Your task to perform on an android device: What's the weather? Image 0: 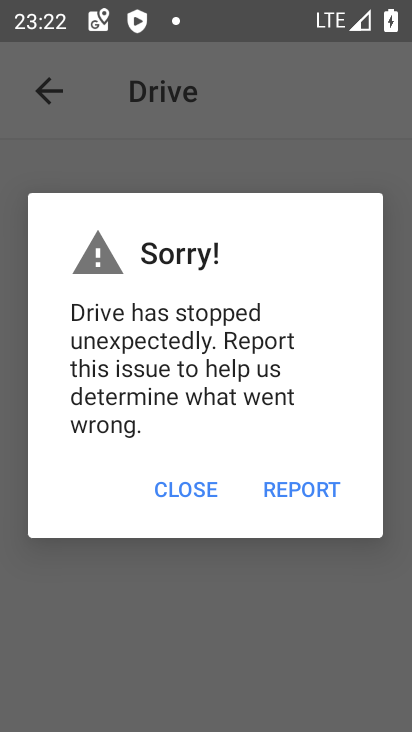
Step 0: press home button
Your task to perform on an android device: What's the weather? Image 1: 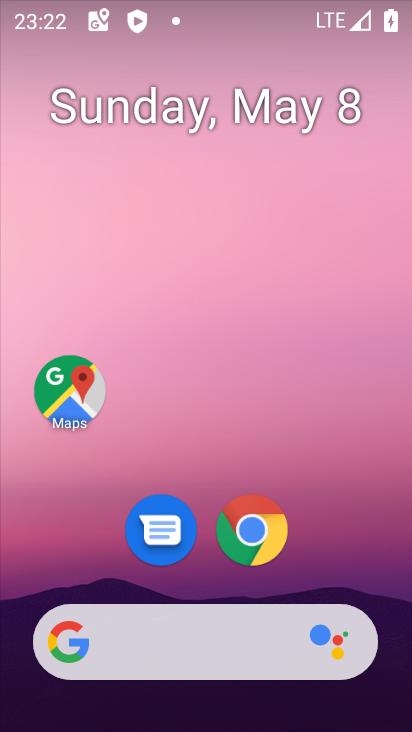
Step 1: drag from (336, 543) to (336, 22)
Your task to perform on an android device: What's the weather? Image 2: 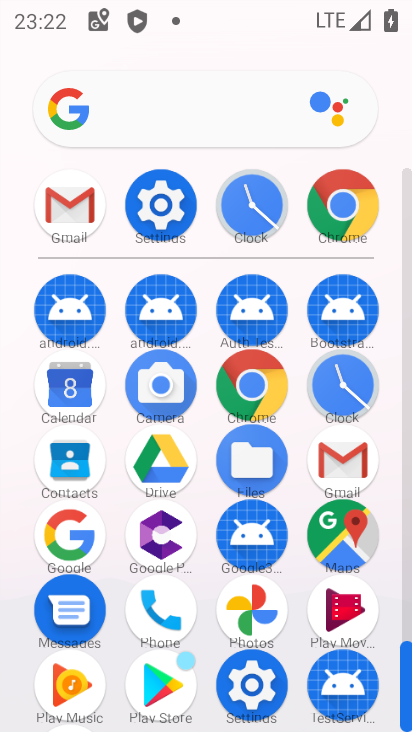
Step 2: click (354, 201)
Your task to perform on an android device: What's the weather? Image 3: 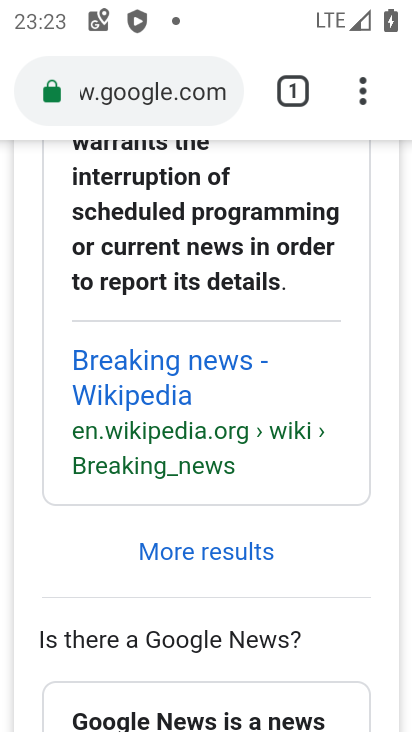
Step 3: drag from (333, 600) to (346, 305)
Your task to perform on an android device: What's the weather? Image 4: 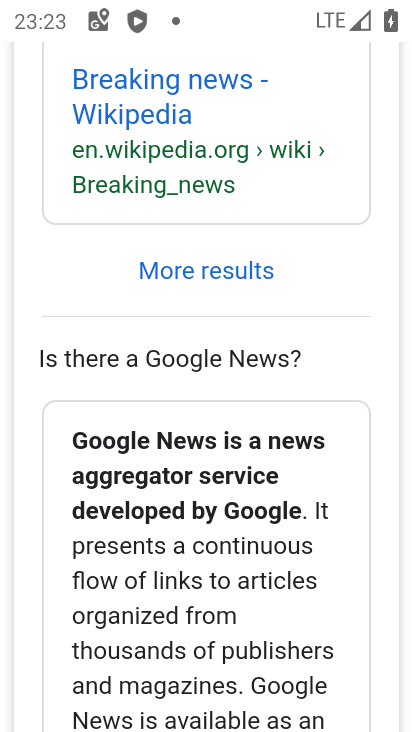
Step 4: drag from (253, 101) to (274, 521)
Your task to perform on an android device: What's the weather? Image 5: 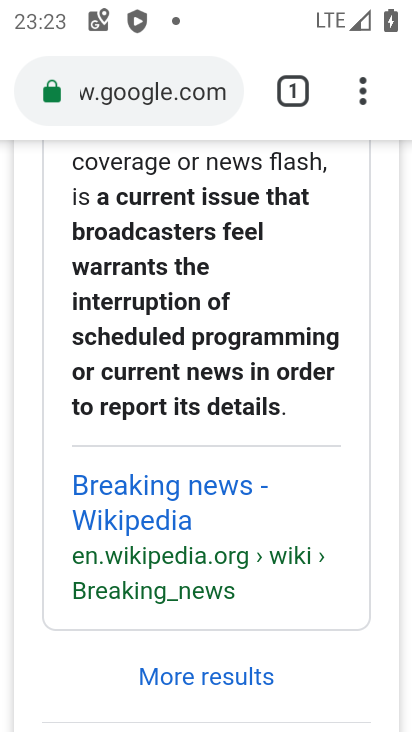
Step 5: click (222, 87)
Your task to perform on an android device: What's the weather? Image 6: 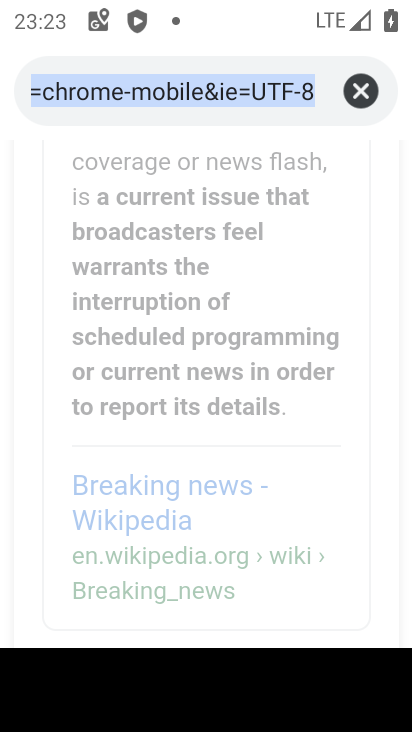
Step 6: click (354, 96)
Your task to perform on an android device: What's the weather? Image 7: 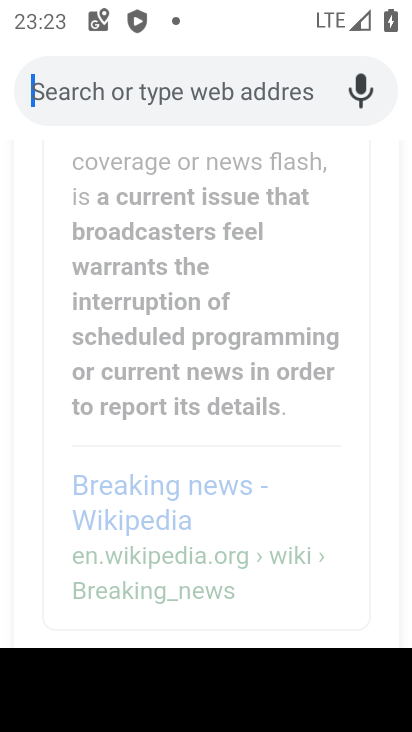
Step 7: type "what's the weather"
Your task to perform on an android device: What's the weather? Image 8: 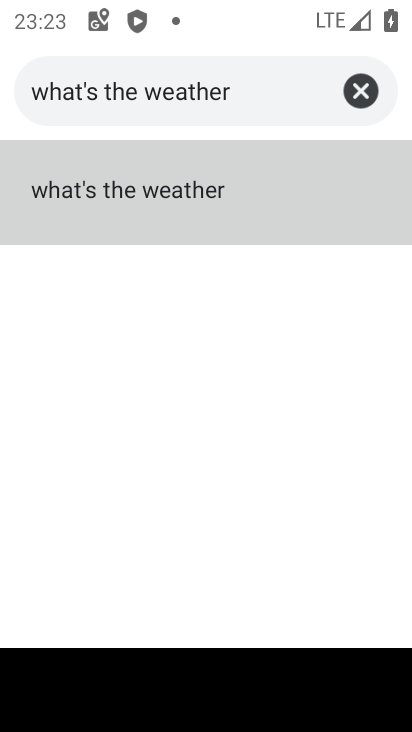
Step 8: click (116, 184)
Your task to perform on an android device: What's the weather? Image 9: 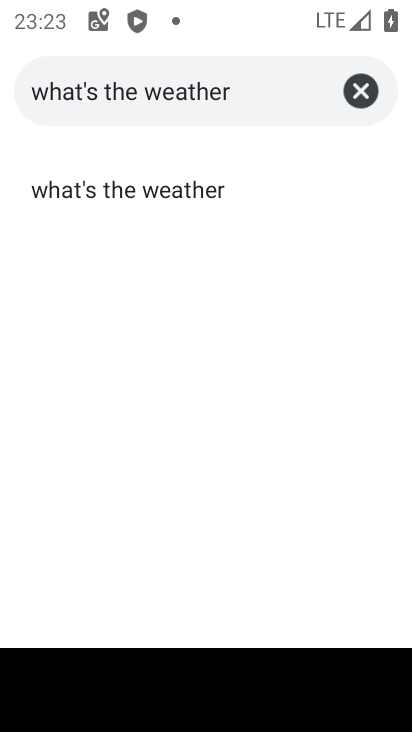
Step 9: click (116, 194)
Your task to perform on an android device: What's the weather? Image 10: 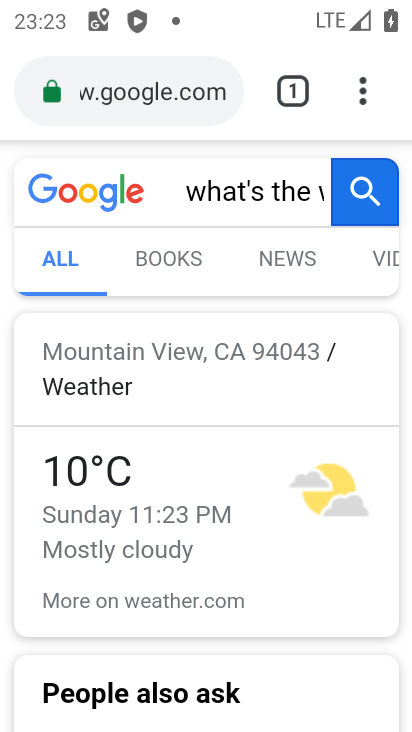
Step 10: task complete